Your task to perform on an android device: Open wifi settings Image 0: 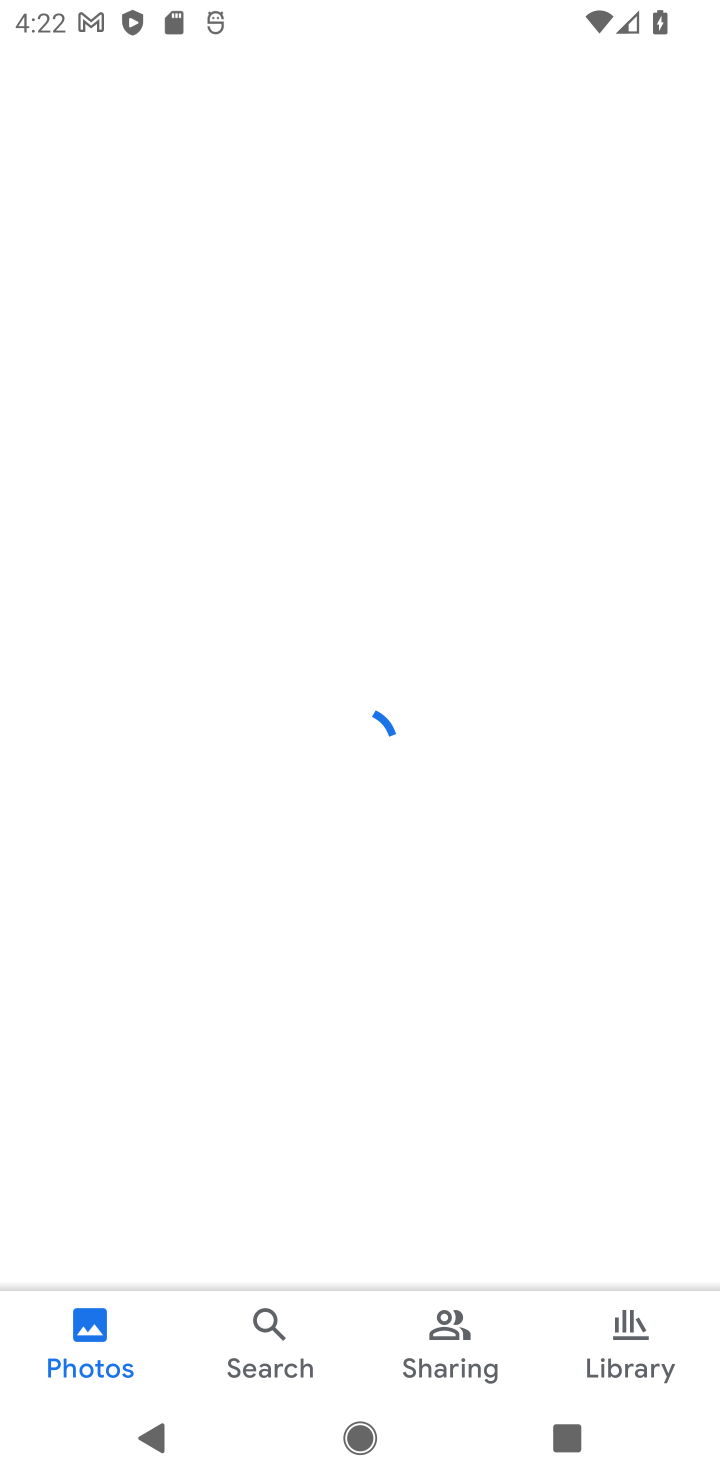
Step 0: press home button
Your task to perform on an android device: Open wifi settings Image 1: 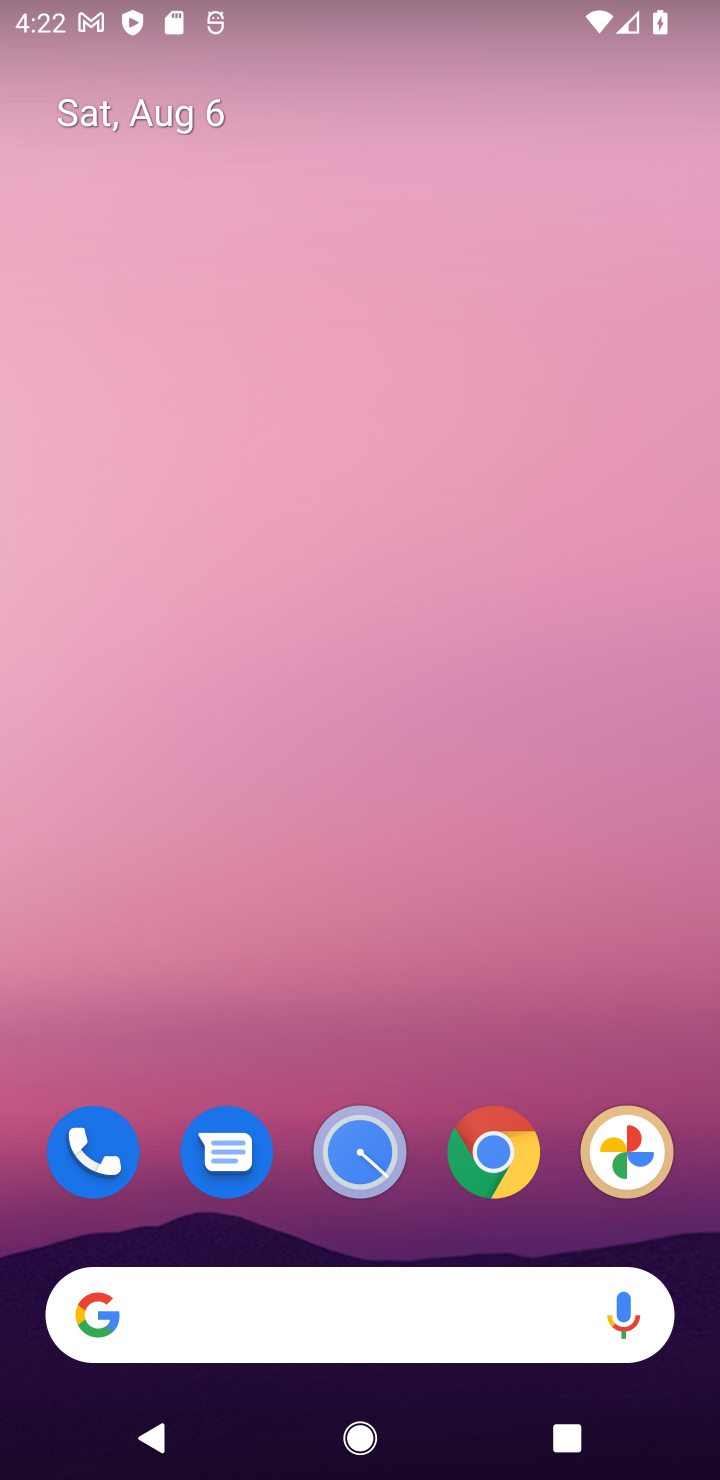
Step 1: drag from (553, 1002) to (469, 37)
Your task to perform on an android device: Open wifi settings Image 2: 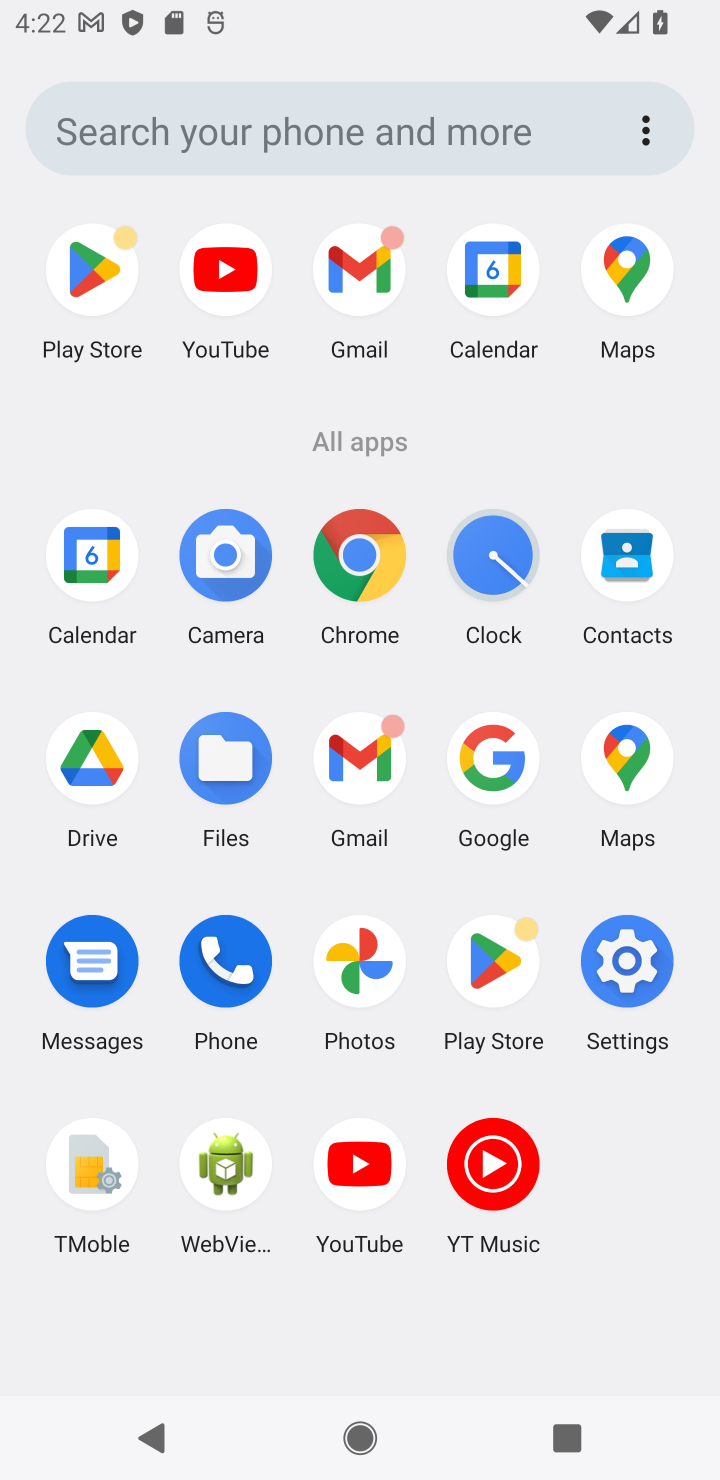
Step 2: click (621, 961)
Your task to perform on an android device: Open wifi settings Image 3: 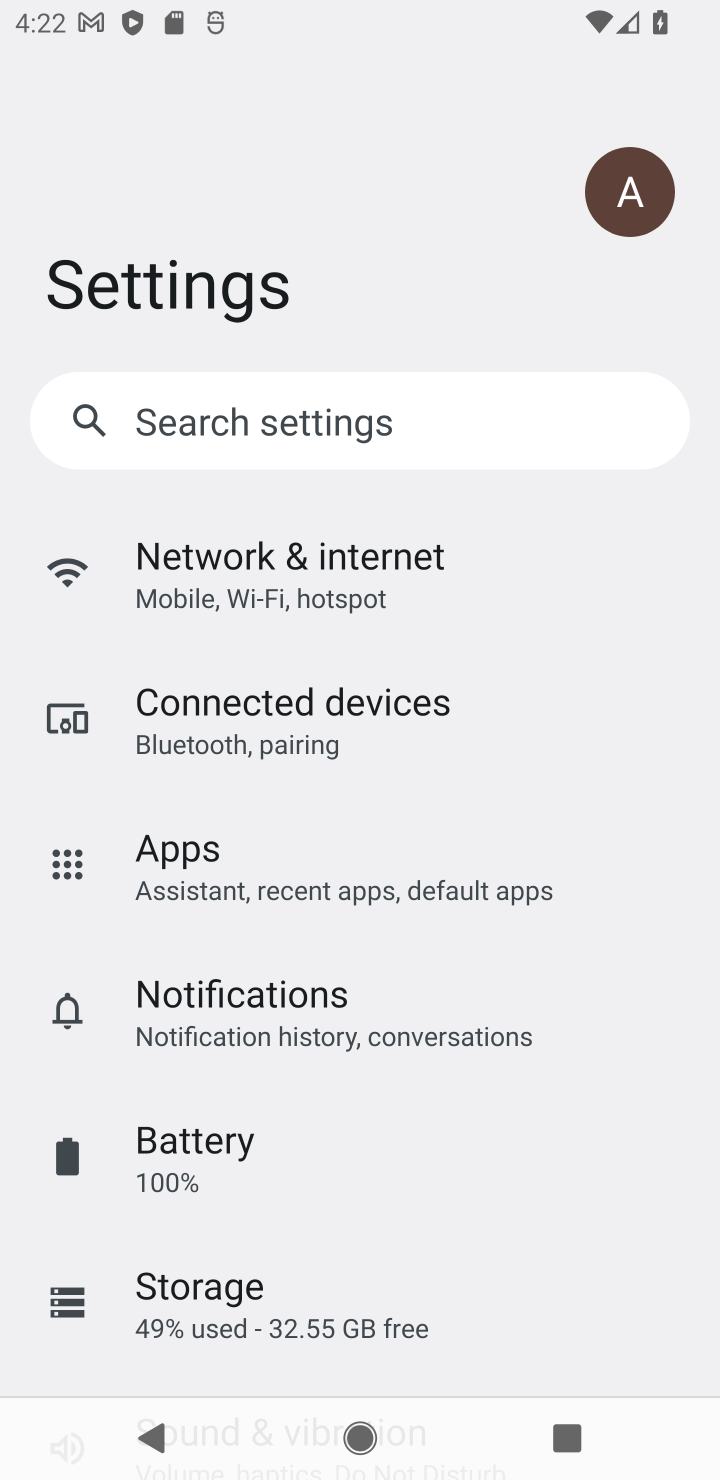
Step 3: click (245, 622)
Your task to perform on an android device: Open wifi settings Image 4: 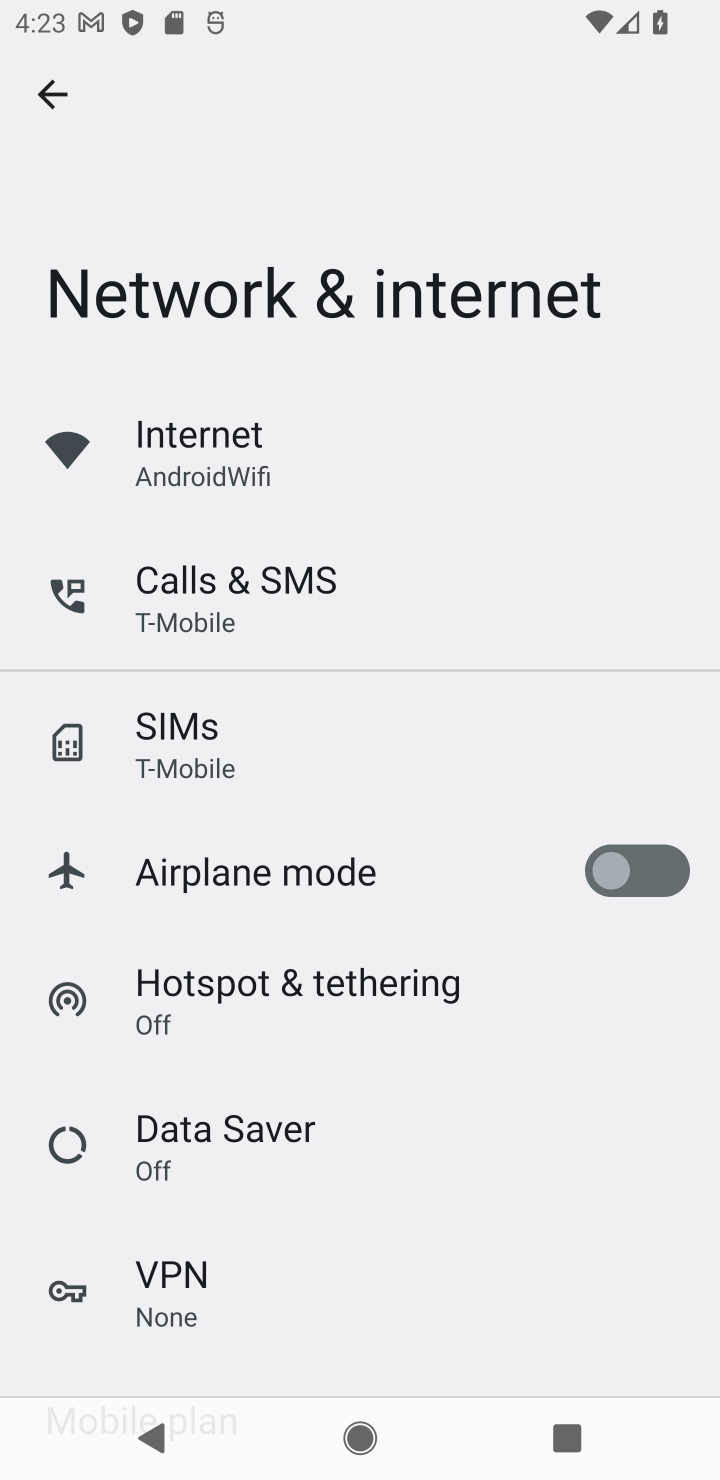
Step 4: click (202, 455)
Your task to perform on an android device: Open wifi settings Image 5: 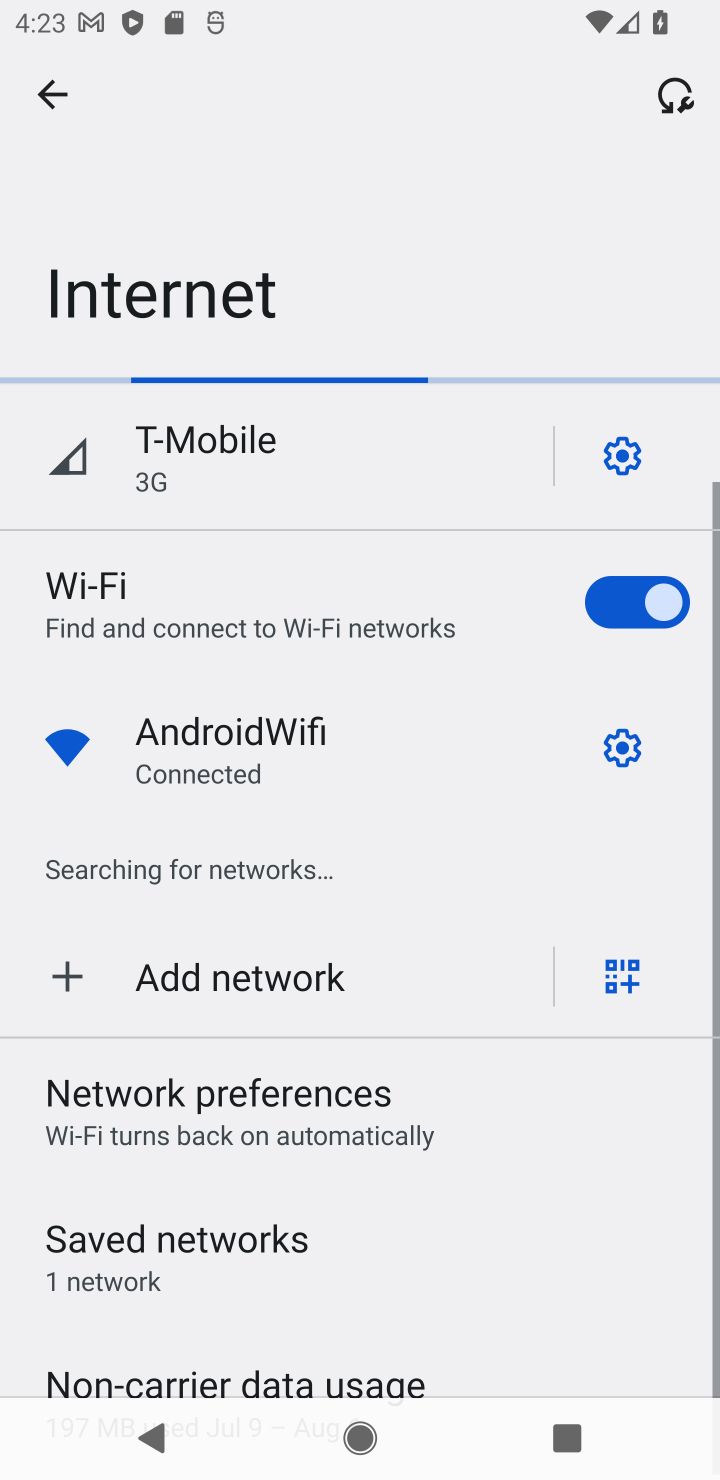
Step 5: click (625, 737)
Your task to perform on an android device: Open wifi settings Image 6: 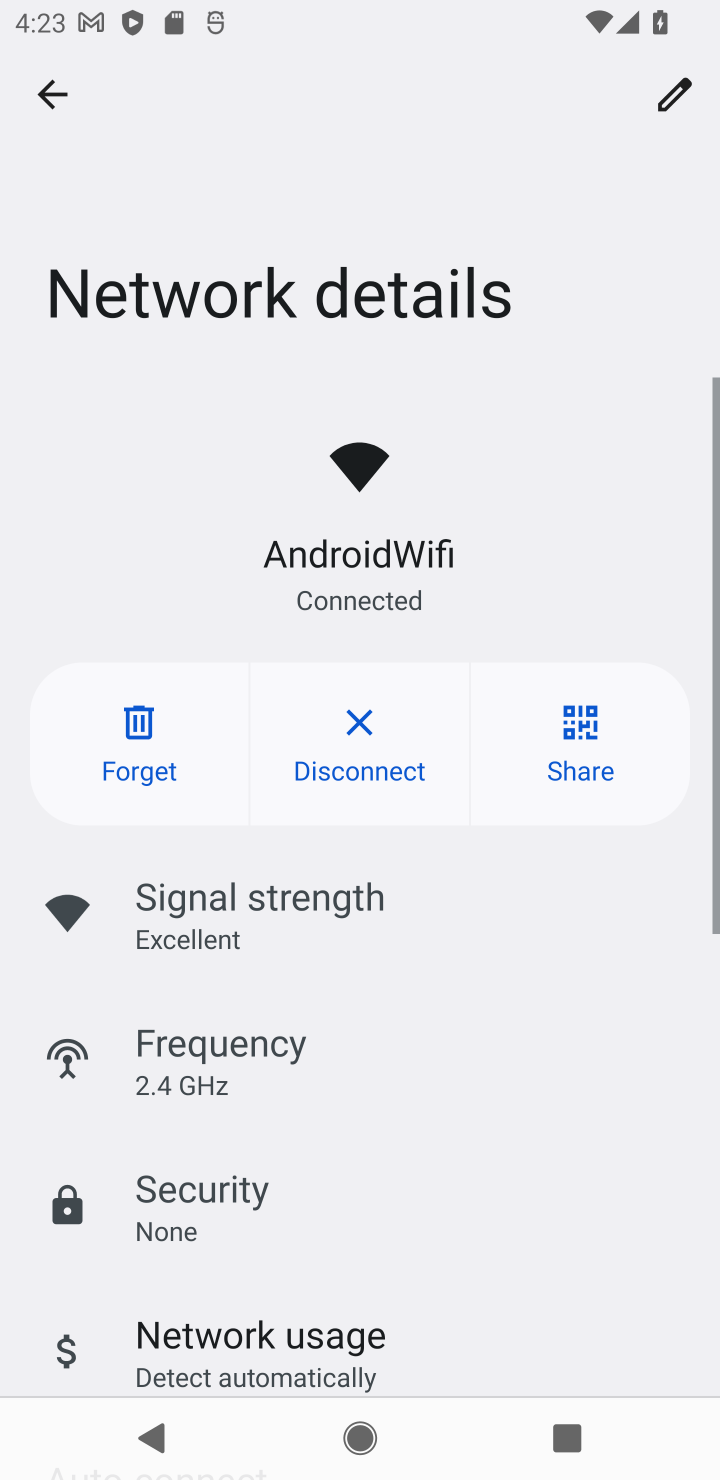
Step 6: task complete